Your task to perform on an android device: See recent photos Image 0: 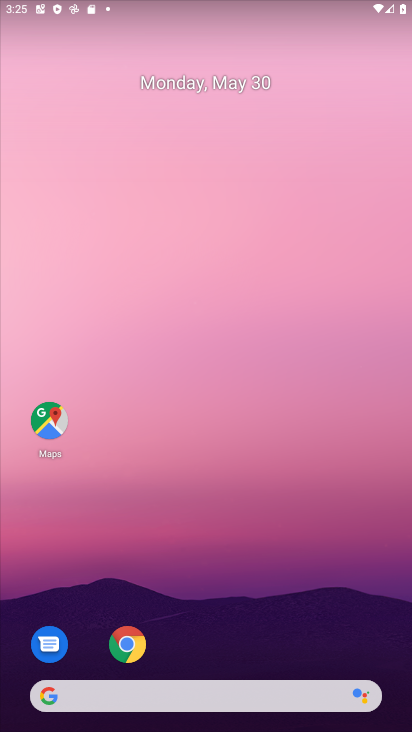
Step 0: drag from (240, 647) to (255, 293)
Your task to perform on an android device: See recent photos Image 1: 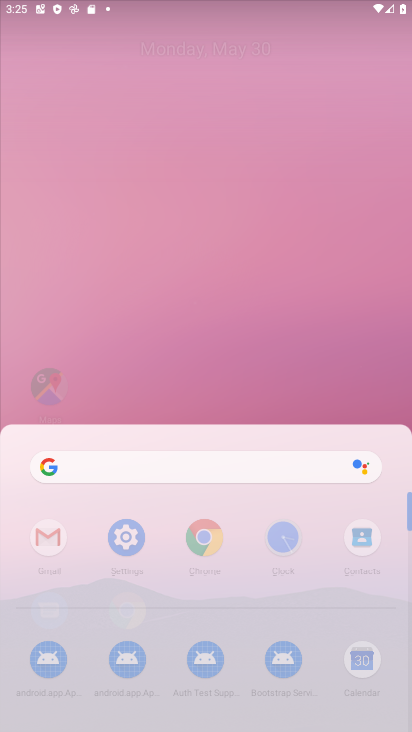
Step 1: click (255, 293)
Your task to perform on an android device: See recent photos Image 2: 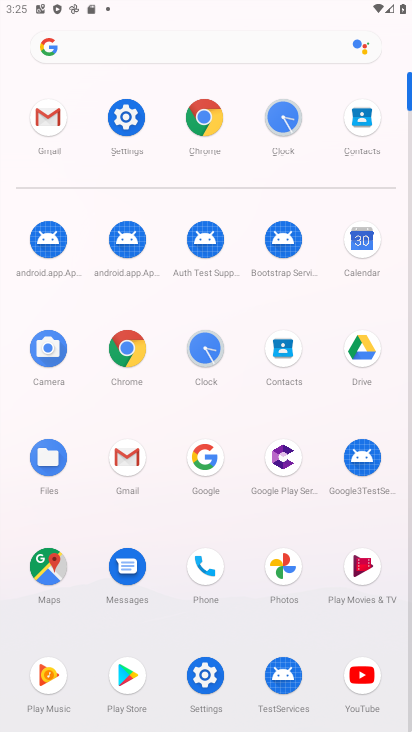
Step 2: click (290, 565)
Your task to perform on an android device: See recent photos Image 3: 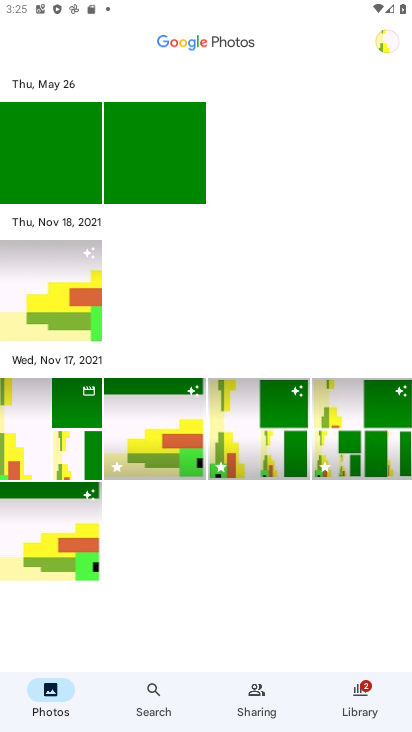
Step 3: task complete